Your task to perform on an android device: turn pop-ups off in chrome Image 0: 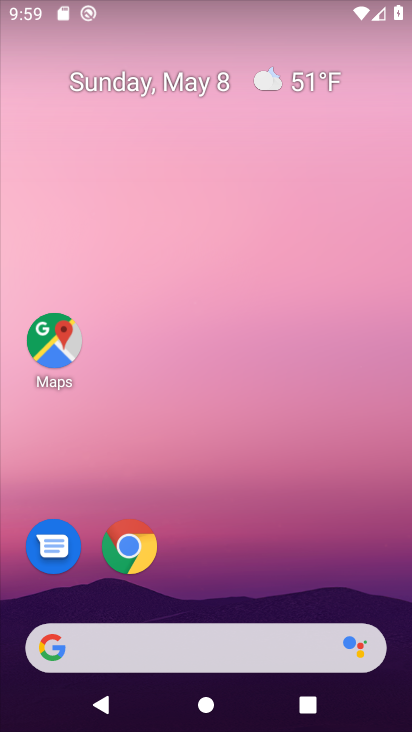
Step 0: click (128, 546)
Your task to perform on an android device: turn pop-ups off in chrome Image 1: 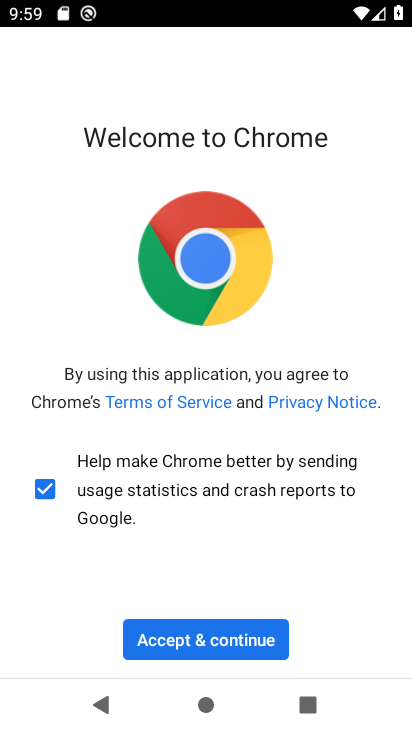
Step 1: click (200, 636)
Your task to perform on an android device: turn pop-ups off in chrome Image 2: 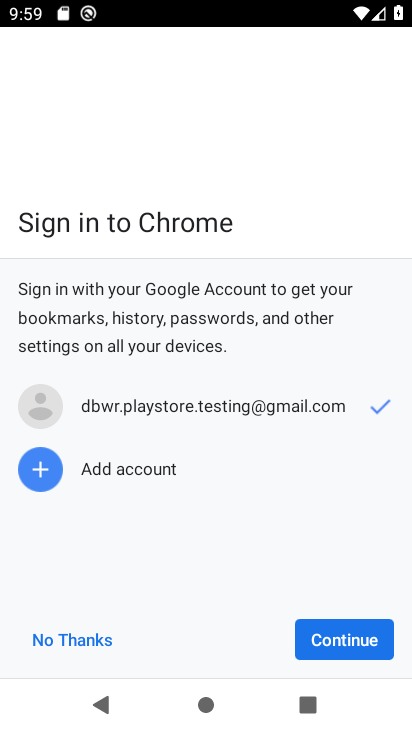
Step 2: click (338, 639)
Your task to perform on an android device: turn pop-ups off in chrome Image 3: 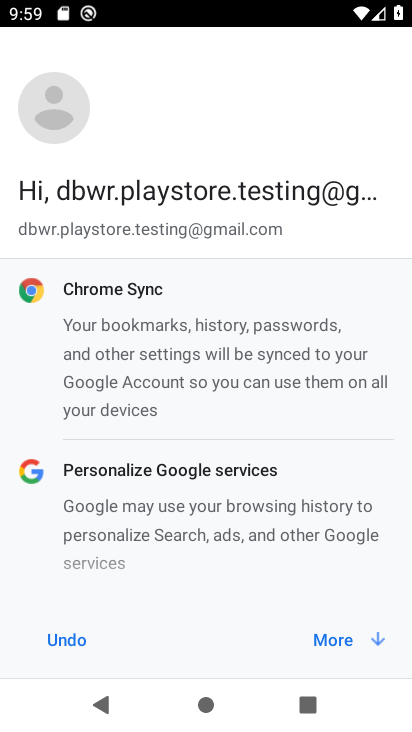
Step 3: click (328, 638)
Your task to perform on an android device: turn pop-ups off in chrome Image 4: 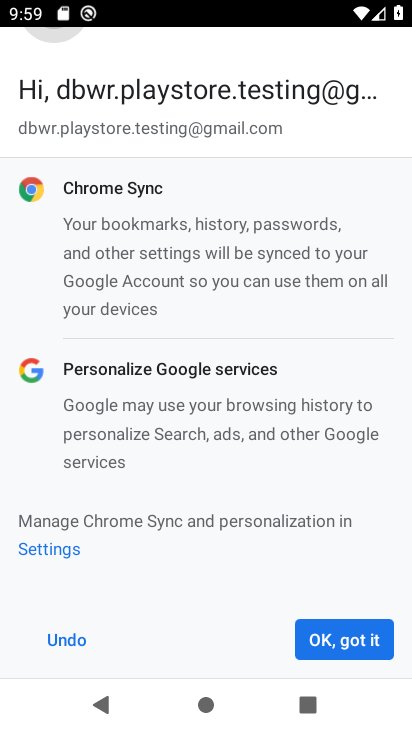
Step 4: click (328, 638)
Your task to perform on an android device: turn pop-ups off in chrome Image 5: 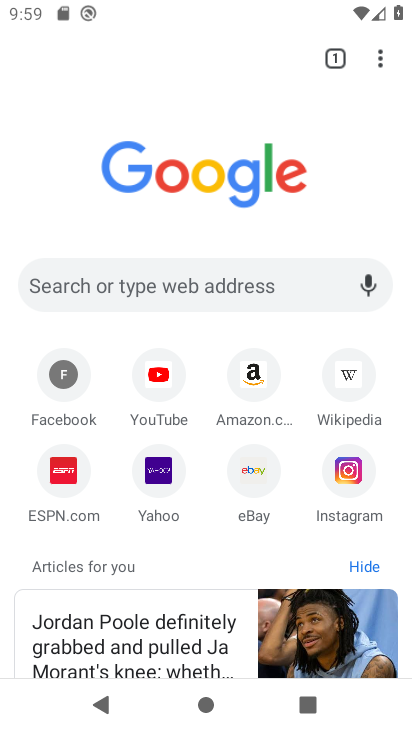
Step 5: click (379, 65)
Your task to perform on an android device: turn pop-ups off in chrome Image 6: 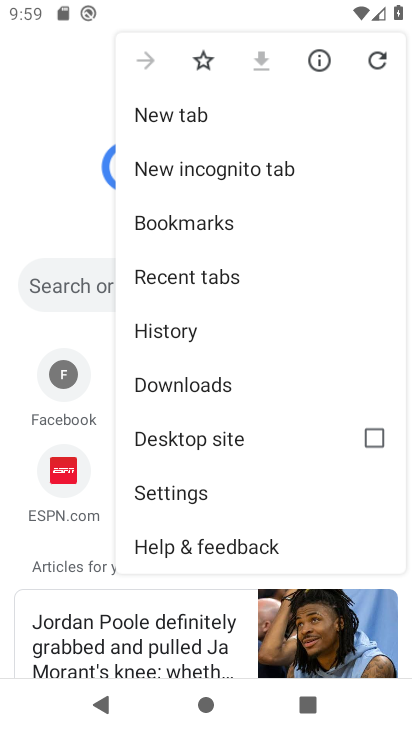
Step 6: click (181, 498)
Your task to perform on an android device: turn pop-ups off in chrome Image 7: 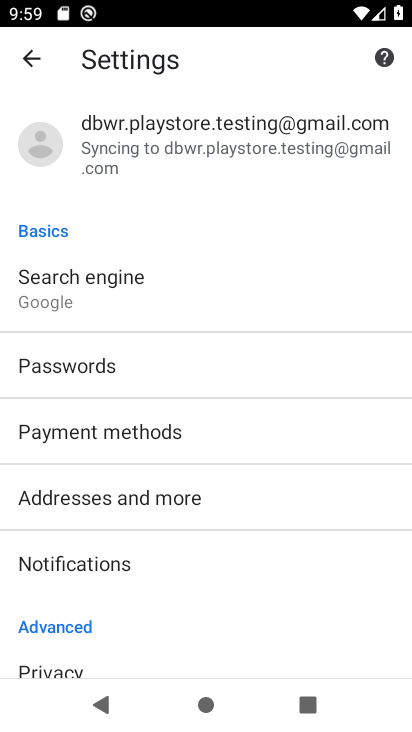
Step 7: drag from (266, 621) to (257, 200)
Your task to perform on an android device: turn pop-ups off in chrome Image 8: 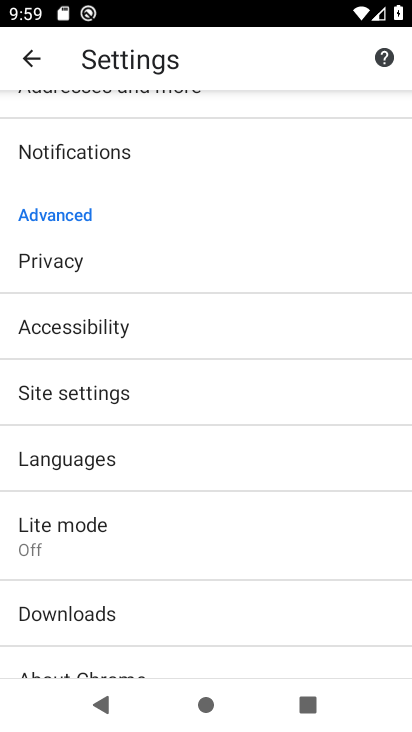
Step 8: click (33, 389)
Your task to perform on an android device: turn pop-ups off in chrome Image 9: 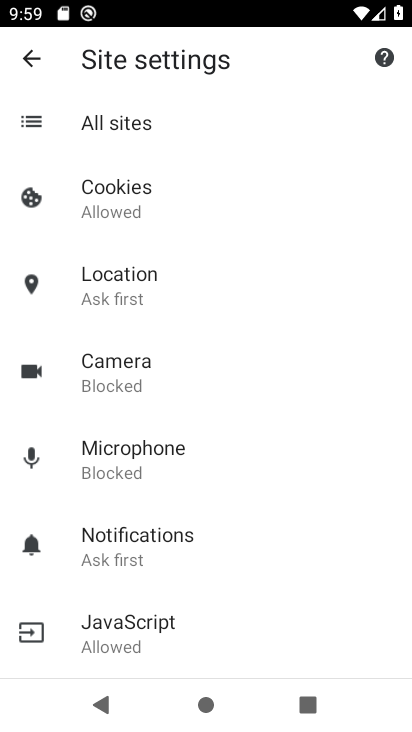
Step 9: drag from (203, 649) to (218, 199)
Your task to perform on an android device: turn pop-ups off in chrome Image 10: 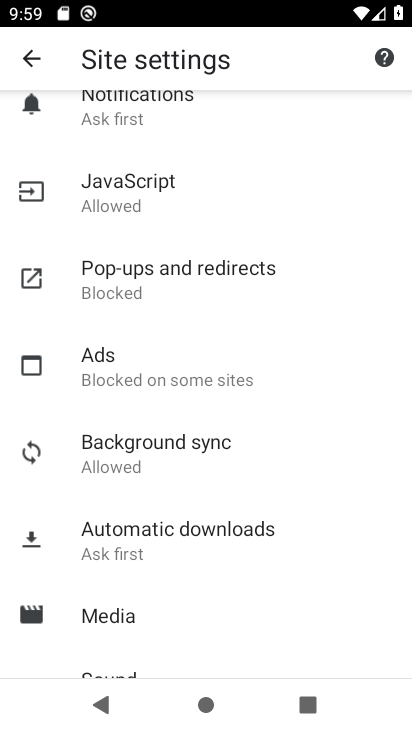
Step 10: click (87, 278)
Your task to perform on an android device: turn pop-ups off in chrome Image 11: 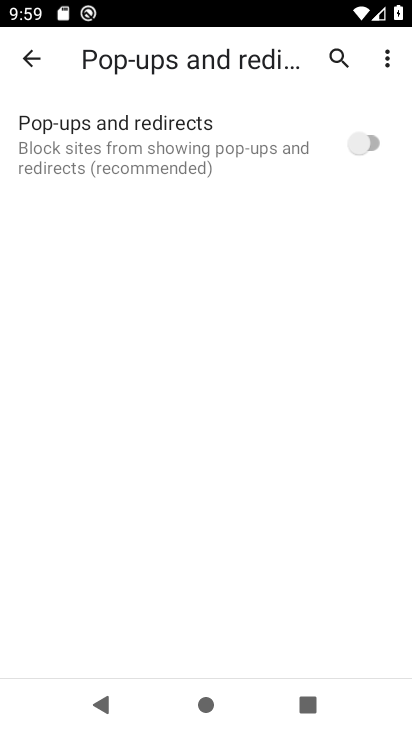
Step 11: task complete